Your task to perform on an android device: What is the recent news? Image 0: 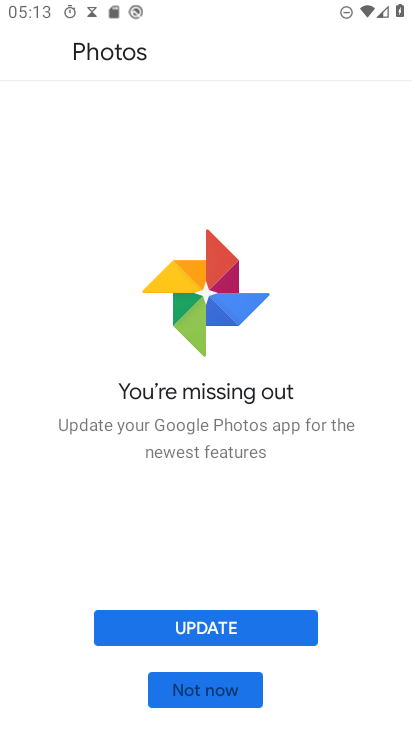
Step 0: press back button
Your task to perform on an android device: What is the recent news? Image 1: 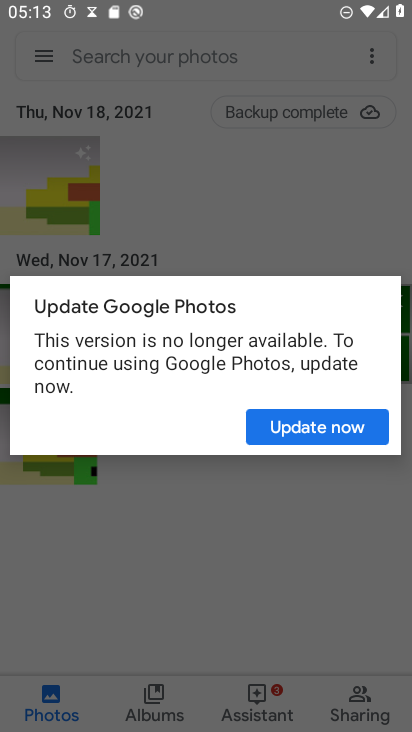
Step 1: press home button
Your task to perform on an android device: What is the recent news? Image 2: 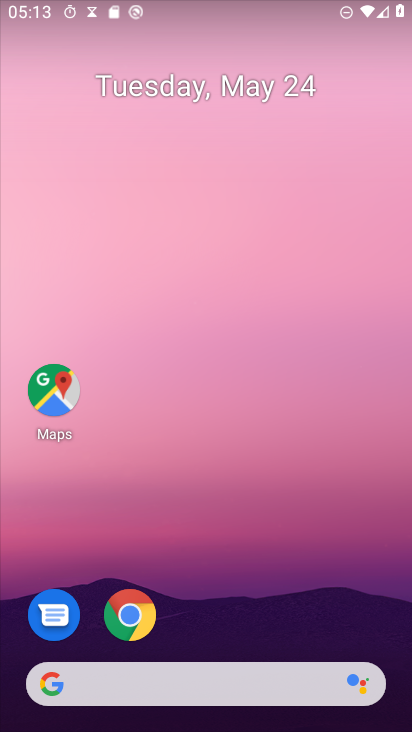
Step 2: click (138, 687)
Your task to perform on an android device: What is the recent news? Image 3: 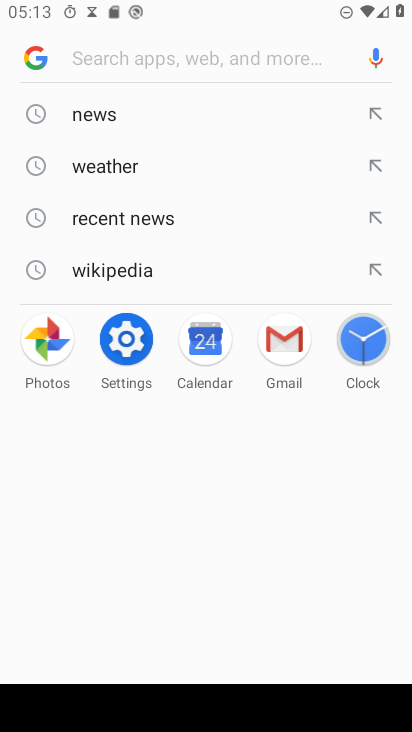
Step 3: click (128, 221)
Your task to perform on an android device: What is the recent news? Image 4: 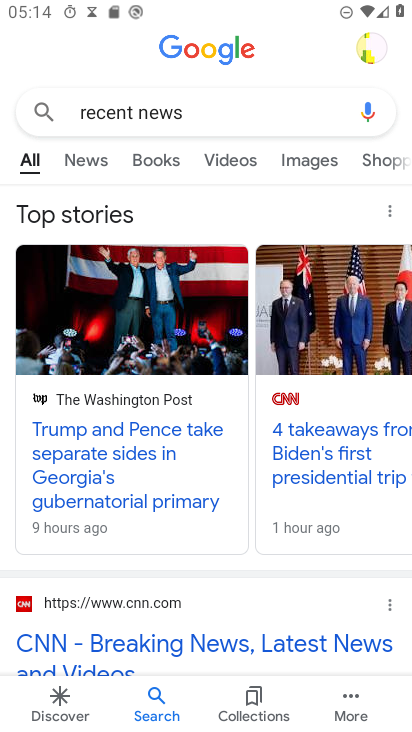
Step 4: task complete